Your task to perform on an android device: check android version Image 0: 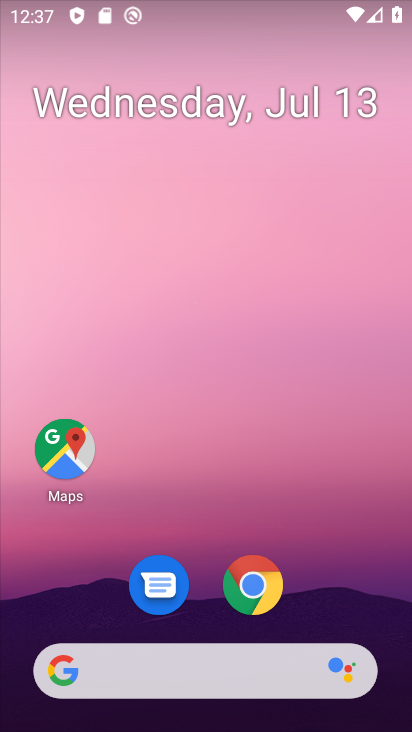
Step 0: drag from (317, 375) to (320, 49)
Your task to perform on an android device: check android version Image 1: 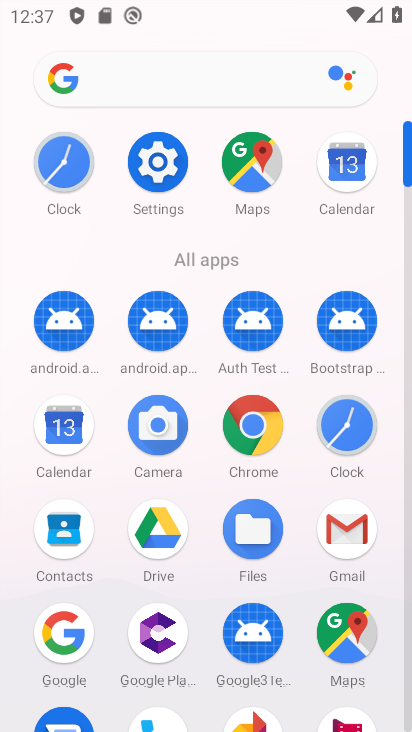
Step 1: click (157, 168)
Your task to perform on an android device: check android version Image 2: 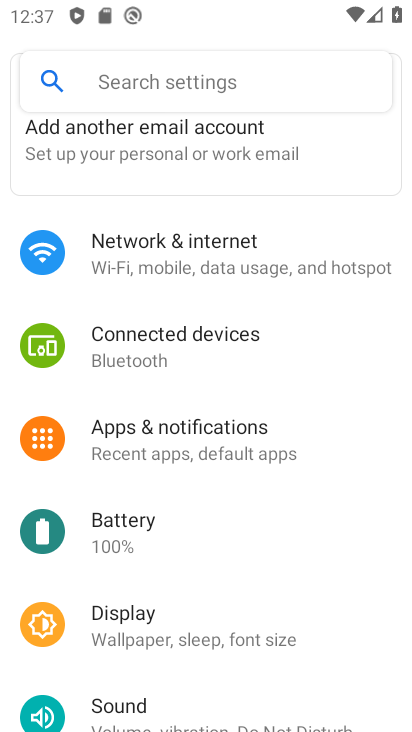
Step 2: drag from (179, 535) to (237, 125)
Your task to perform on an android device: check android version Image 3: 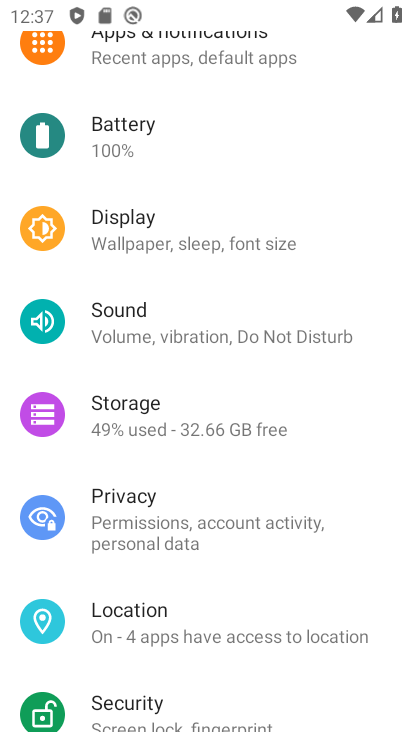
Step 3: drag from (243, 504) to (258, 71)
Your task to perform on an android device: check android version Image 4: 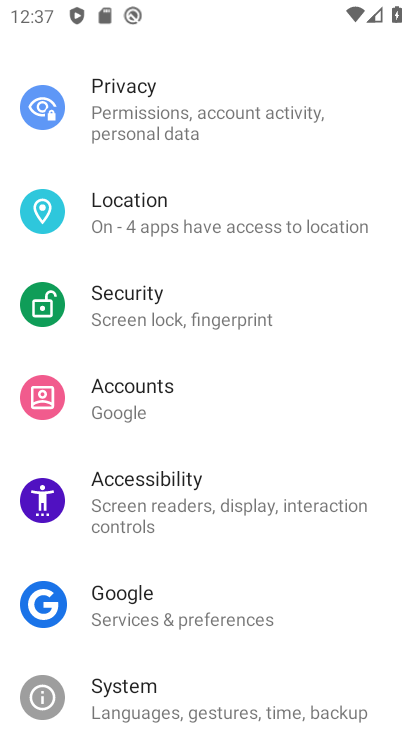
Step 4: drag from (224, 480) to (237, 99)
Your task to perform on an android device: check android version Image 5: 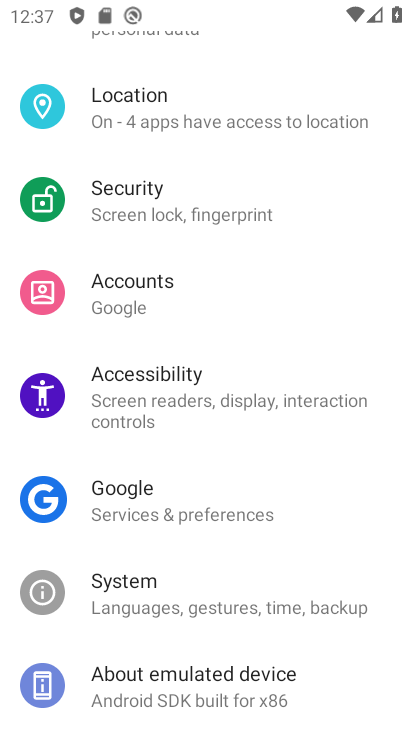
Step 5: click (195, 683)
Your task to perform on an android device: check android version Image 6: 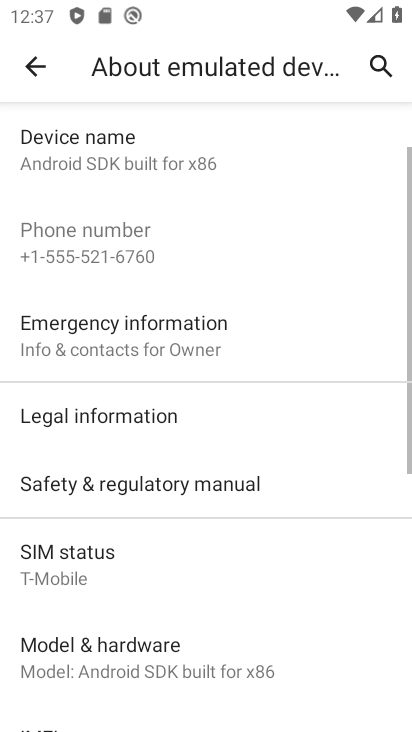
Step 6: drag from (249, 601) to (266, 119)
Your task to perform on an android device: check android version Image 7: 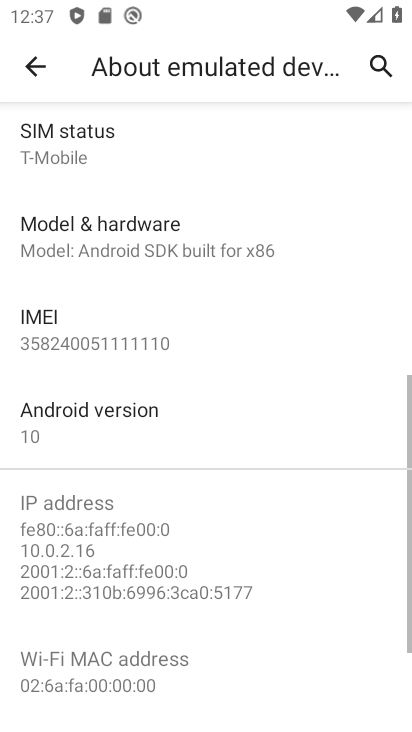
Step 7: click (105, 420)
Your task to perform on an android device: check android version Image 8: 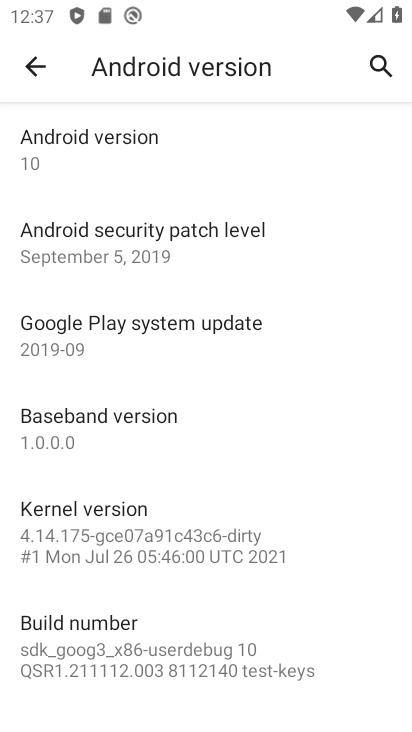
Step 8: task complete